Your task to perform on an android device: Go to Maps Image 0: 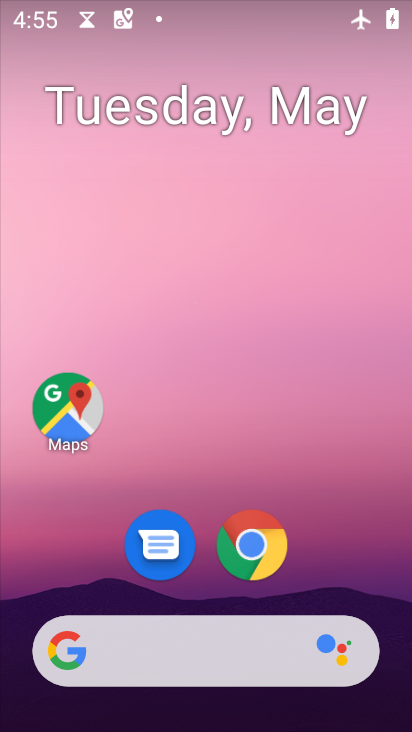
Step 0: click (68, 412)
Your task to perform on an android device: Go to Maps Image 1: 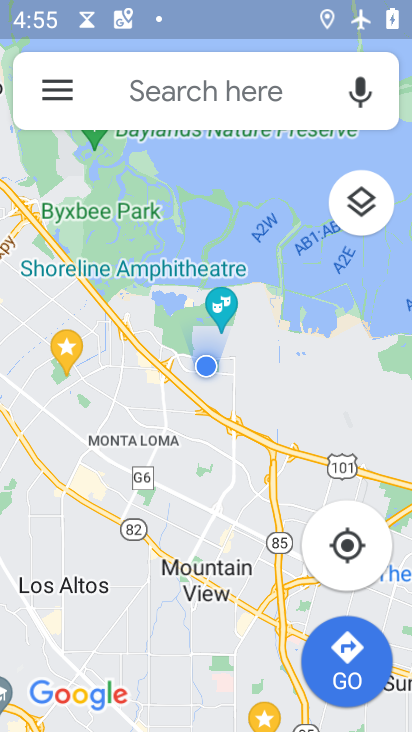
Step 1: task complete